Your task to perform on an android device: Go to calendar. Show me events next week Image 0: 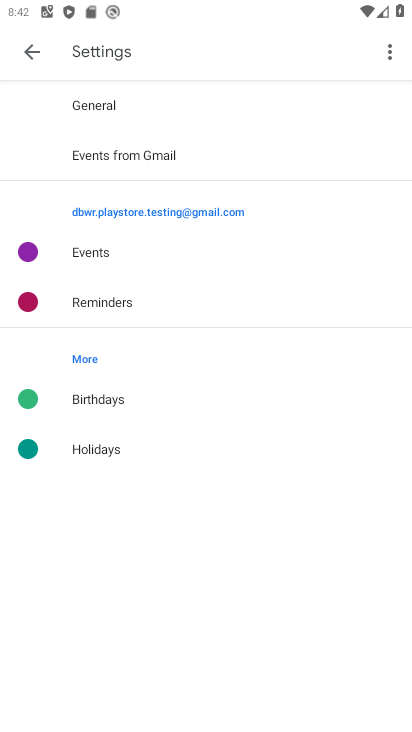
Step 0: press home button
Your task to perform on an android device: Go to calendar. Show me events next week Image 1: 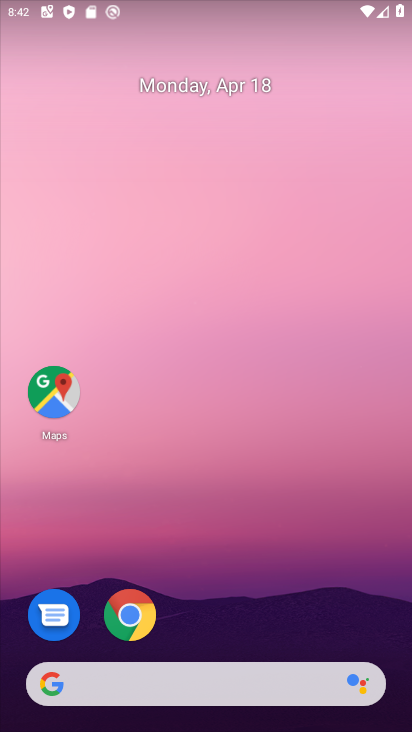
Step 1: drag from (351, 599) to (346, 191)
Your task to perform on an android device: Go to calendar. Show me events next week Image 2: 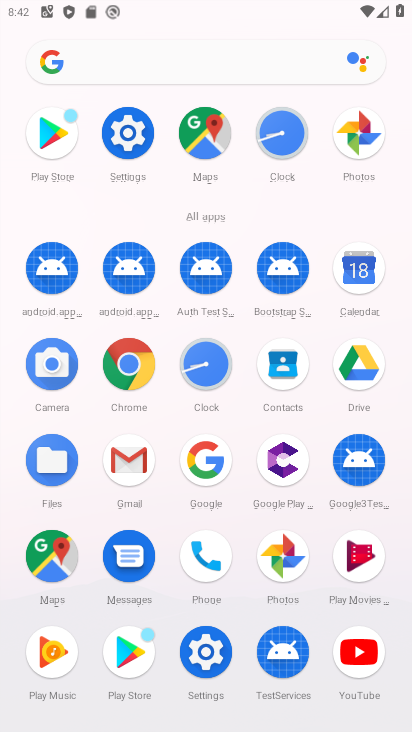
Step 2: click (364, 263)
Your task to perform on an android device: Go to calendar. Show me events next week Image 3: 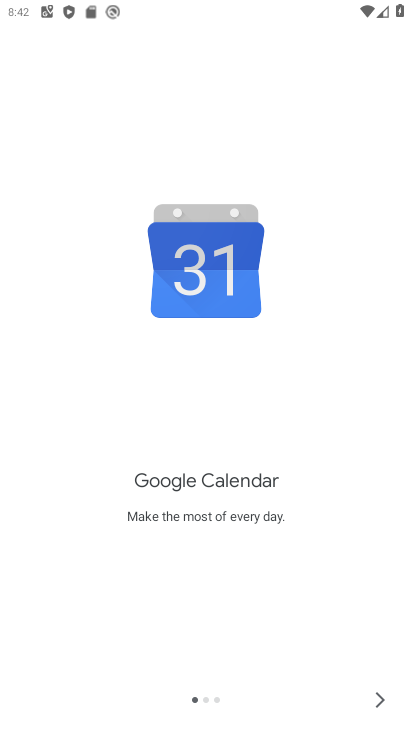
Step 3: click (385, 695)
Your task to perform on an android device: Go to calendar. Show me events next week Image 4: 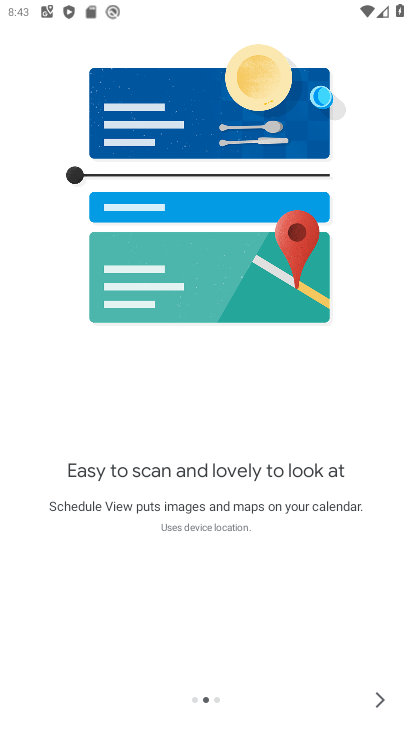
Step 4: click (383, 697)
Your task to perform on an android device: Go to calendar. Show me events next week Image 5: 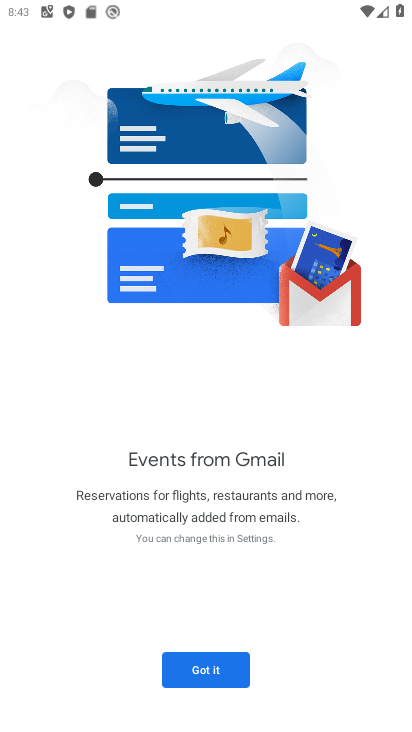
Step 5: click (217, 670)
Your task to perform on an android device: Go to calendar. Show me events next week Image 6: 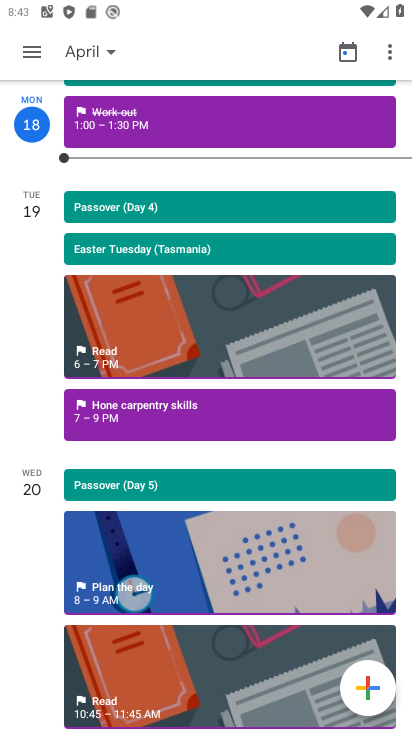
Step 6: click (96, 47)
Your task to perform on an android device: Go to calendar. Show me events next week Image 7: 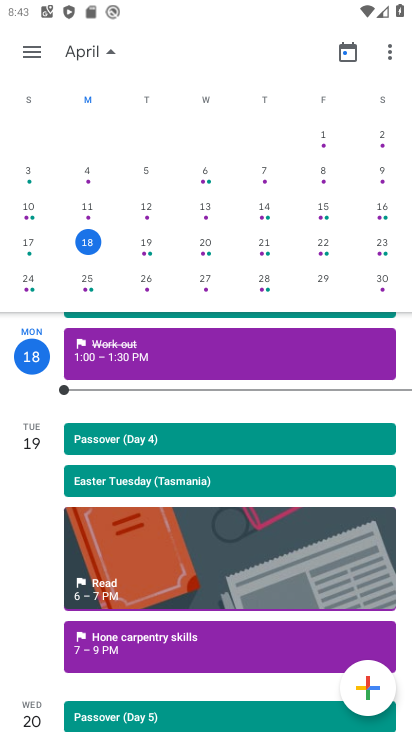
Step 7: click (92, 236)
Your task to perform on an android device: Go to calendar. Show me events next week Image 8: 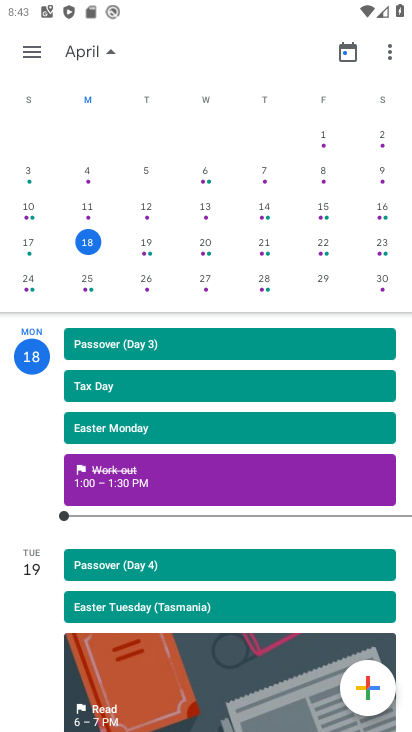
Step 8: task complete